Your task to perform on an android device: Open the map Image 0: 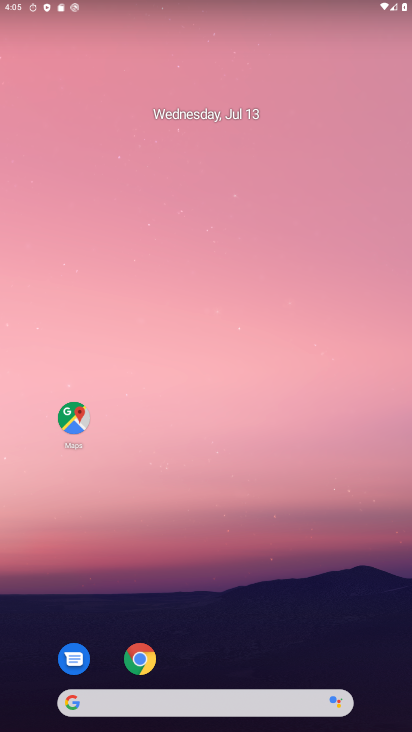
Step 0: drag from (197, 675) to (258, 191)
Your task to perform on an android device: Open the map Image 1: 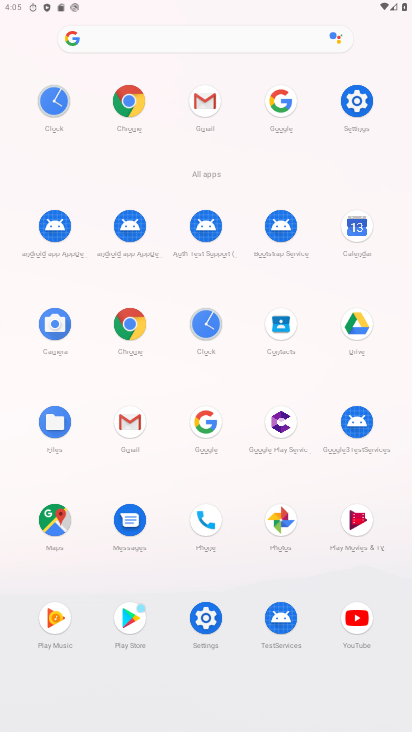
Step 1: click (43, 522)
Your task to perform on an android device: Open the map Image 2: 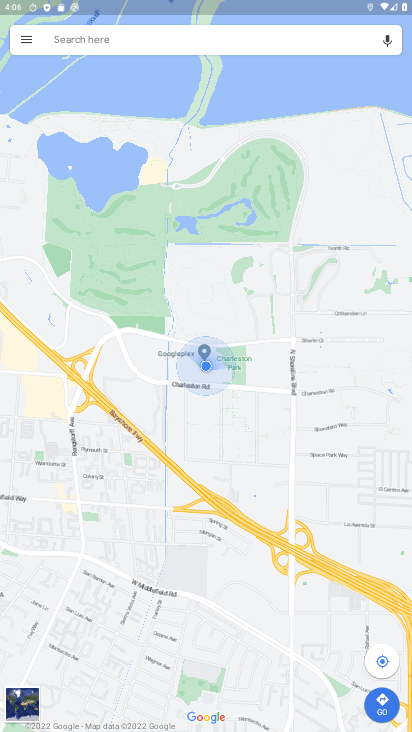
Step 2: task complete